Your task to perform on an android device: turn pop-ups on in chrome Image 0: 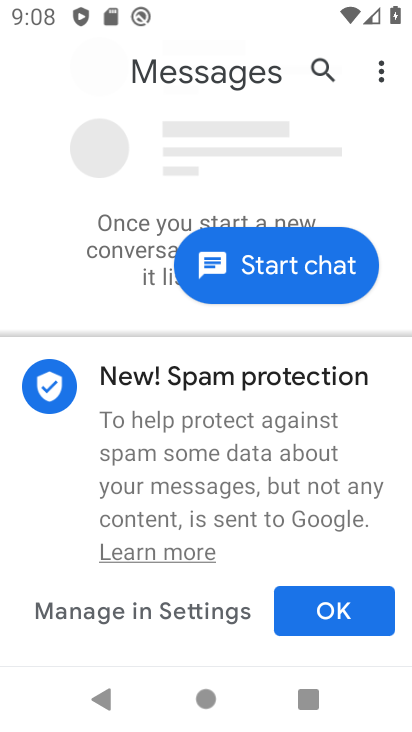
Step 0: press back button
Your task to perform on an android device: turn pop-ups on in chrome Image 1: 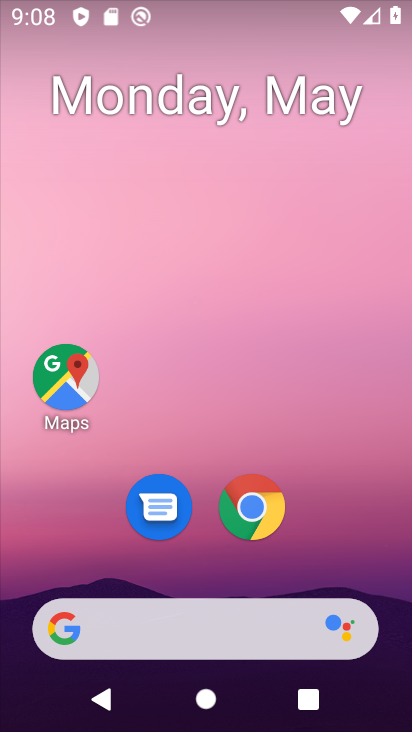
Step 1: drag from (247, 598) to (226, 81)
Your task to perform on an android device: turn pop-ups on in chrome Image 2: 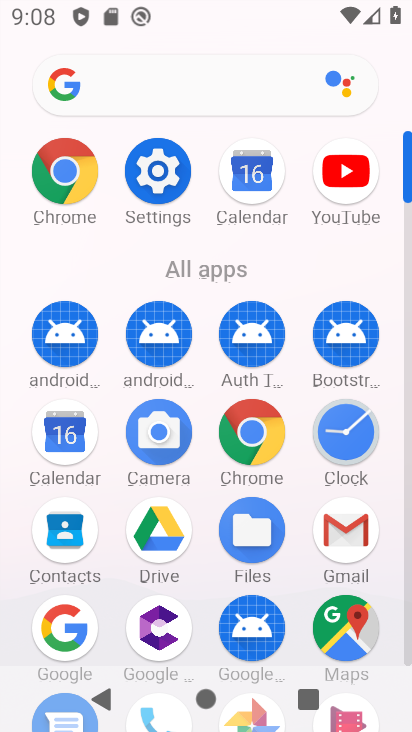
Step 2: click (233, 421)
Your task to perform on an android device: turn pop-ups on in chrome Image 3: 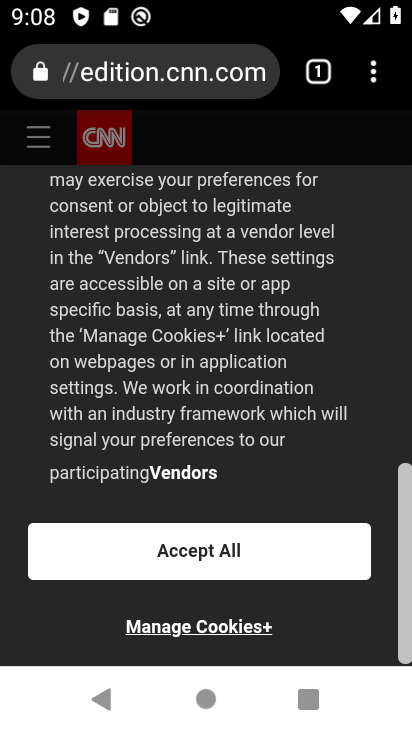
Step 3: click (375, 75)
Your task to perform on an android device: turn pop-ups on in chrome Image 4: 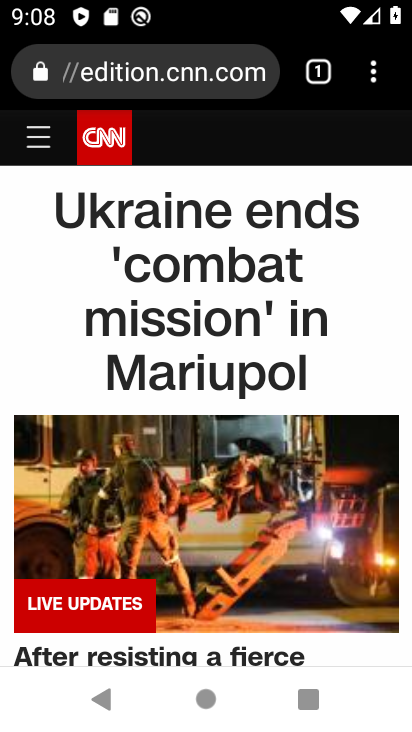
Step 4: drag from (380, 78) to (133, 506)
Your task to perform on an android device: turn pop-ups on in chrome Image 5: 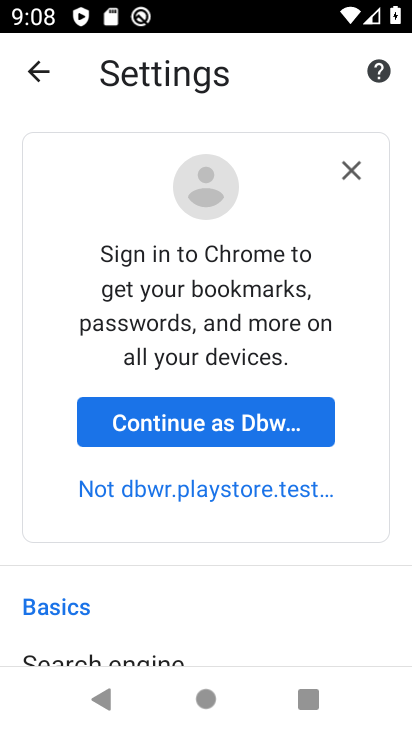
Step 5: drag from (203, 595) to (171, 25)
Your task to perform on an android device: turn pop-ups on in chrome Image 6: 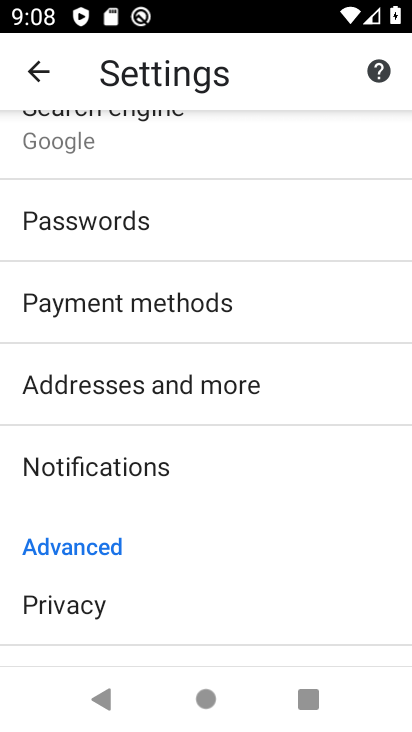
Step 6: drag from (212, 617) to (205, 215)
Your task to perform on an android device: turn pop-ups on in chrome Image 7: 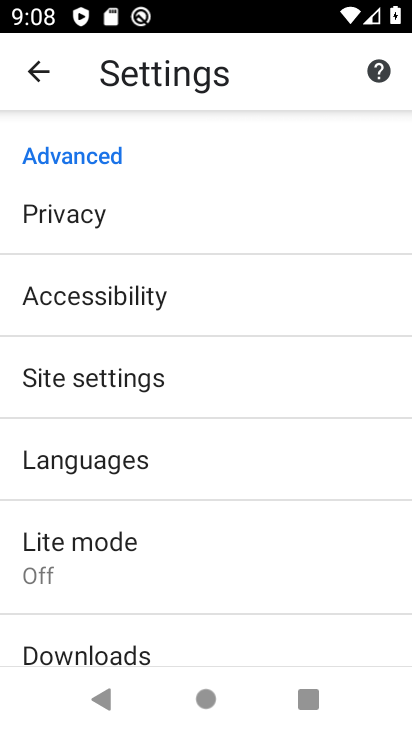
Step 7: click (136, 392)
Your task to perform on an android device: turn pop-ups on in chrome Image 8: 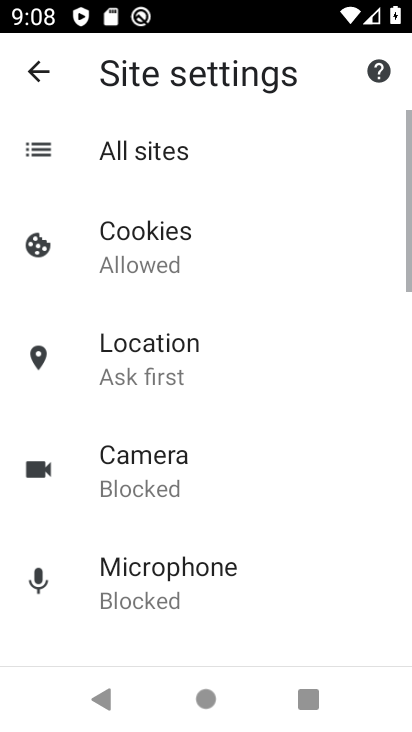
Step 8: drag from (245, 673) to (259, 156)
Your task to perform on an android device: turn pop-ups on in chrome Image 9: 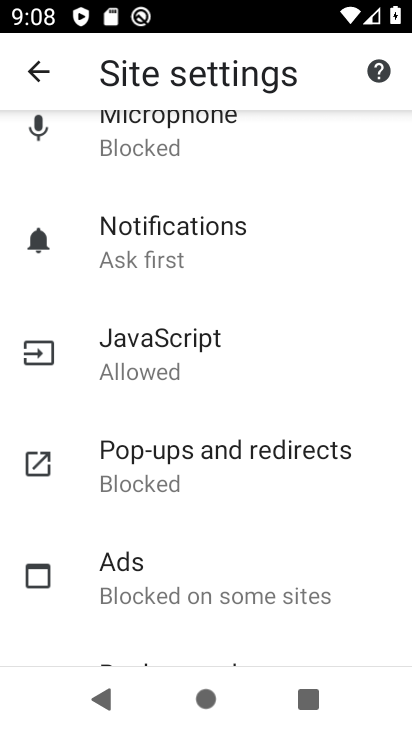
Step 9: click (236, 464)
Your task to perform on an android device: turn pop-ups on in chrome Image 10: 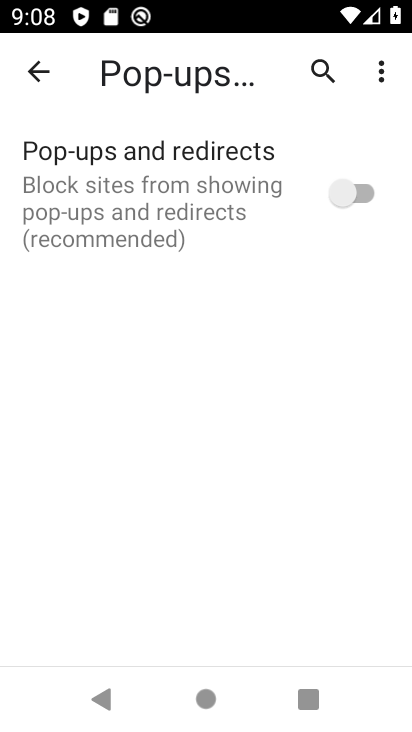
Step 10: click (354, 193)
Your task to perform on an android device: turn pop-ups on in chrome Image 11: 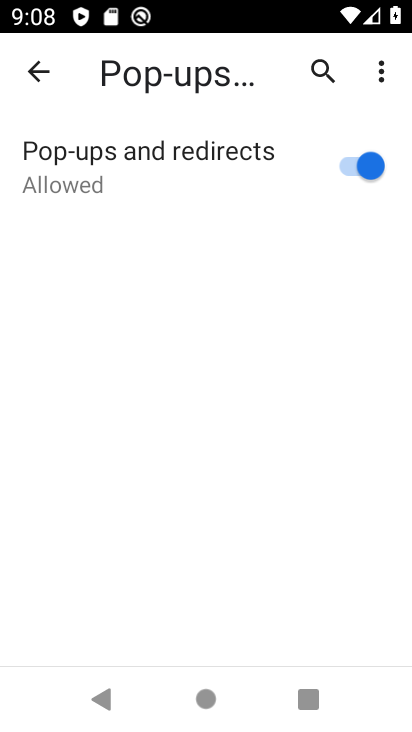
Step 11: task complete